Your task to perform on an android device: Open Maps and search for coffee Image 0: 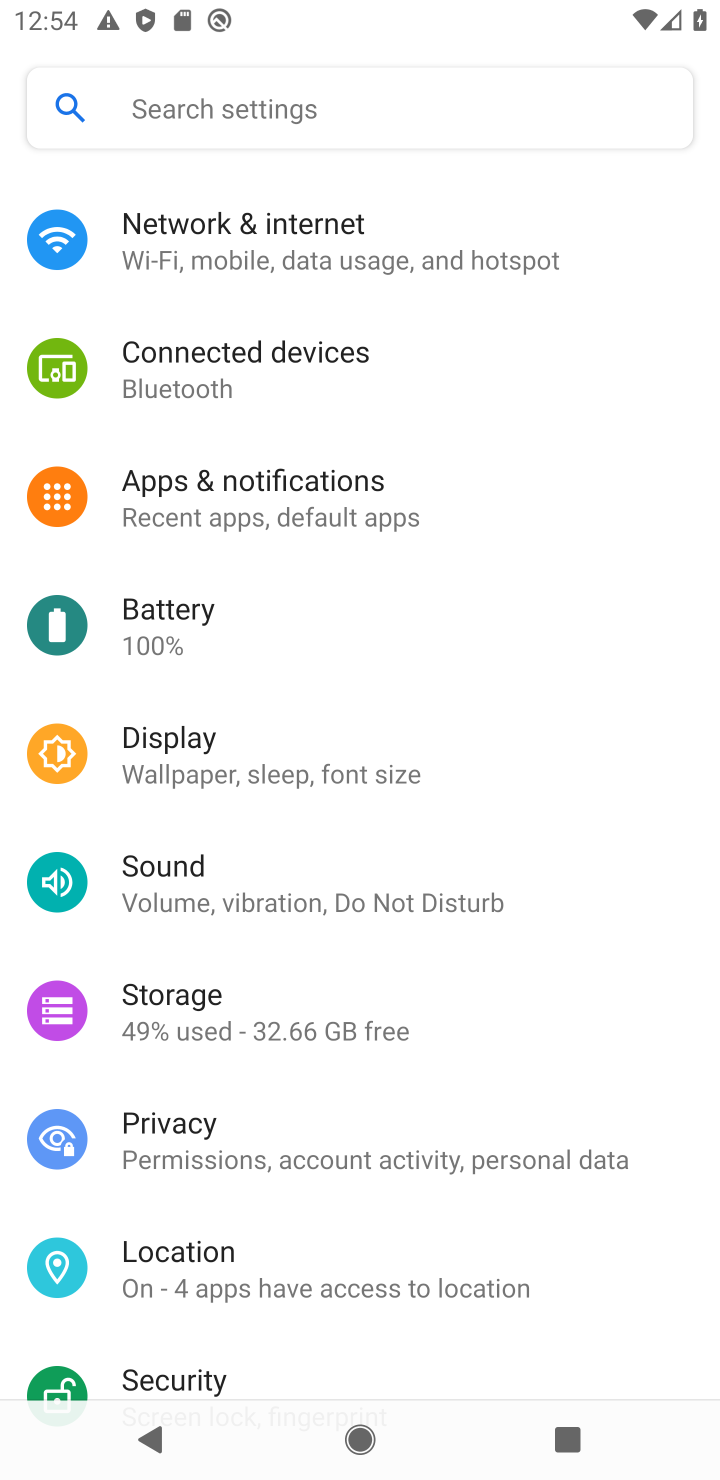
Step 0: press home button
Your task to perform on an android device: Open Maps and search for coffee Image 1: 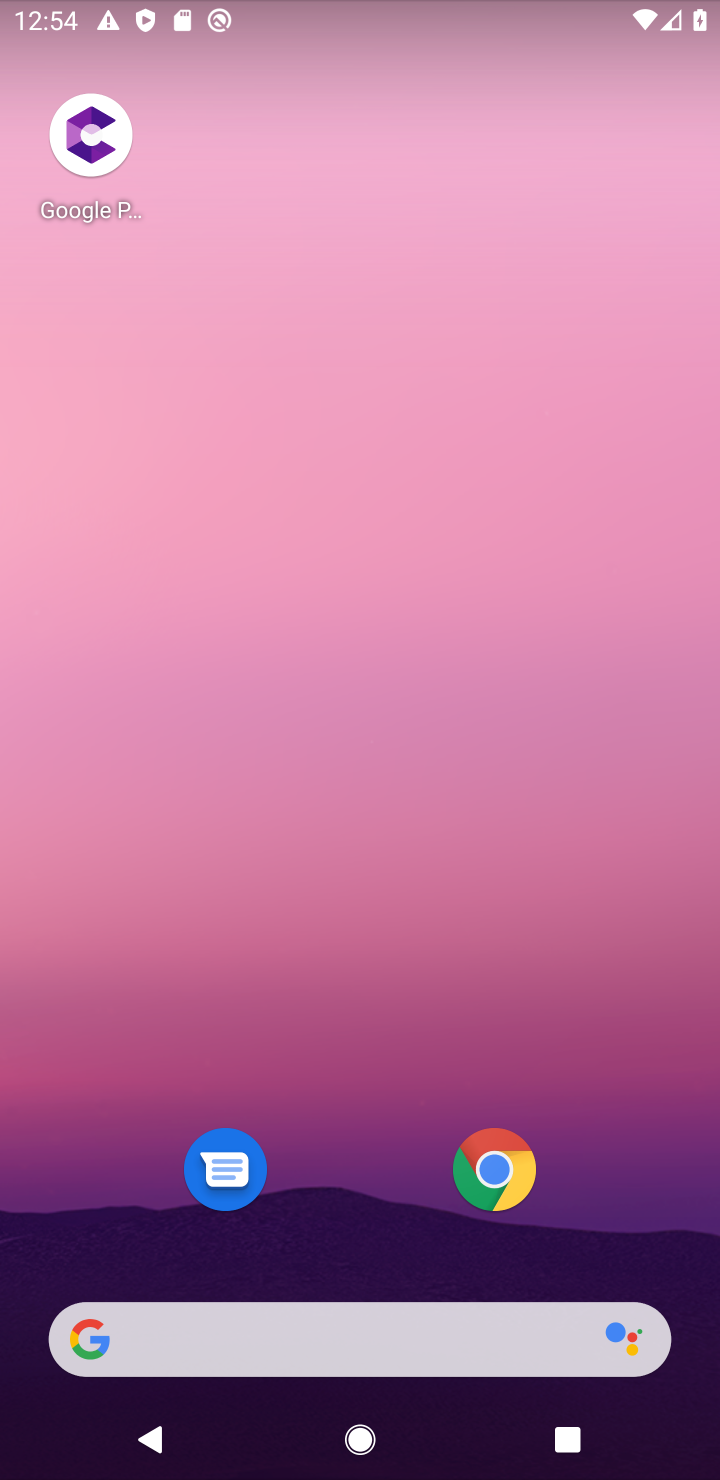
Step 1: drag from (361, 1227) to (414, 72)
Your task to perform on an android device: Open Maps and search for coffee Image 2: 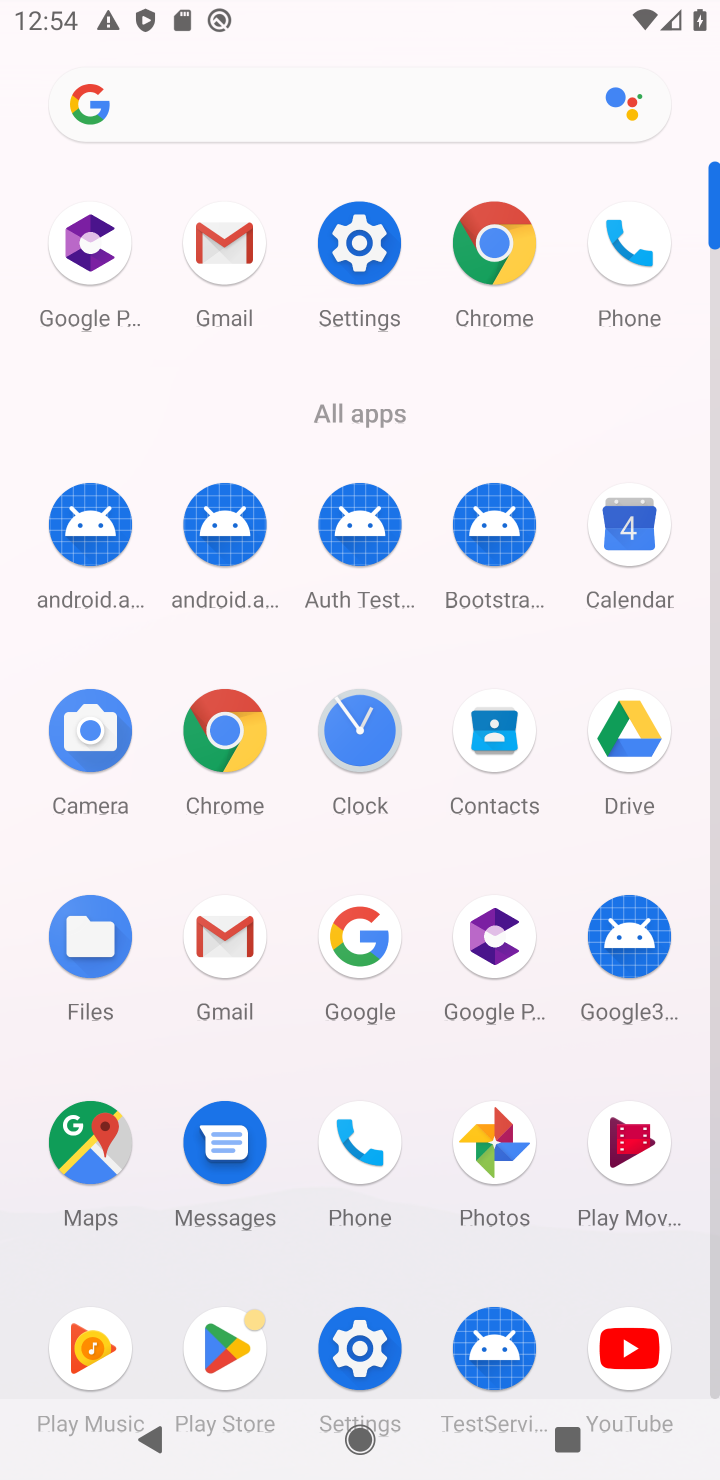
Step 2: click (69, 1161)
Your task to perform on an android device: Open Maps and search for coffee Image 3: 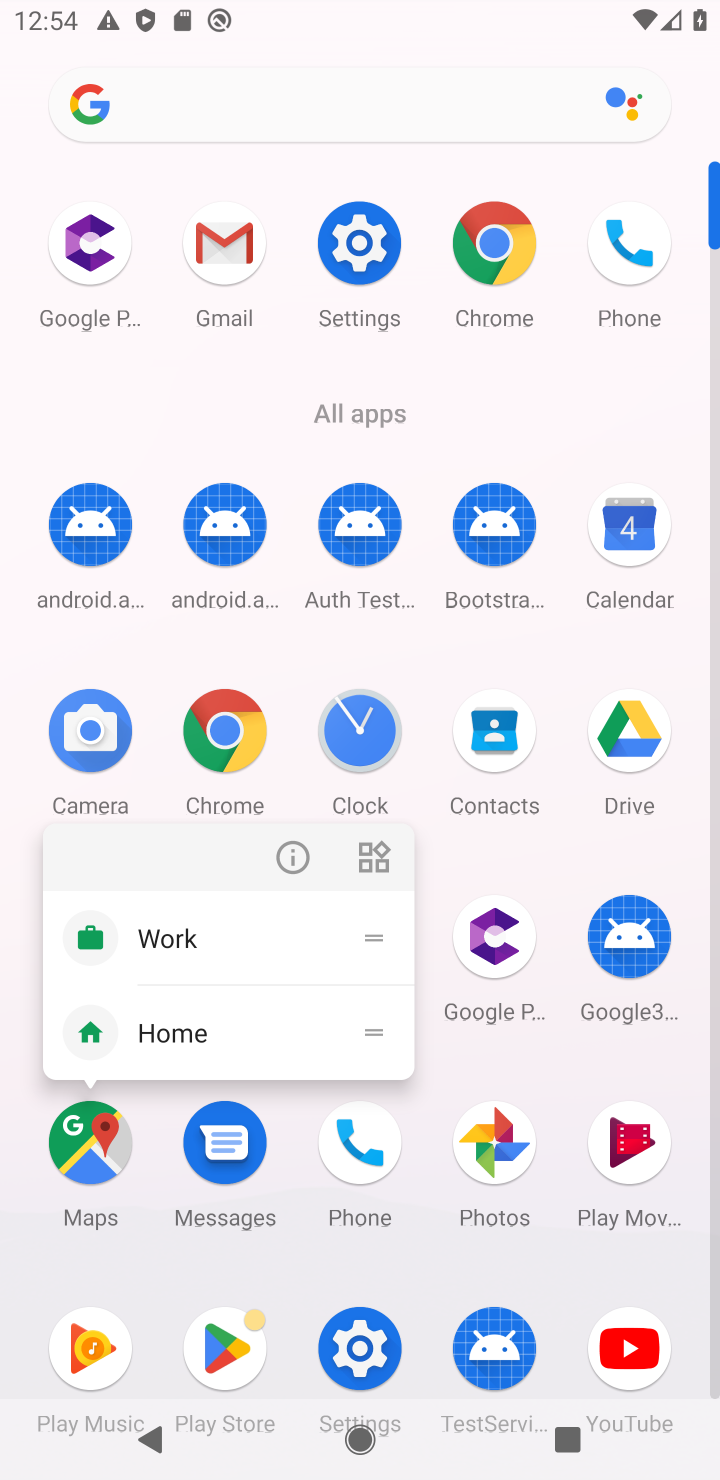
Step 3: click (75, 1163)
Your task to perform on an android device: Open Maps and search for coffee Image 4: 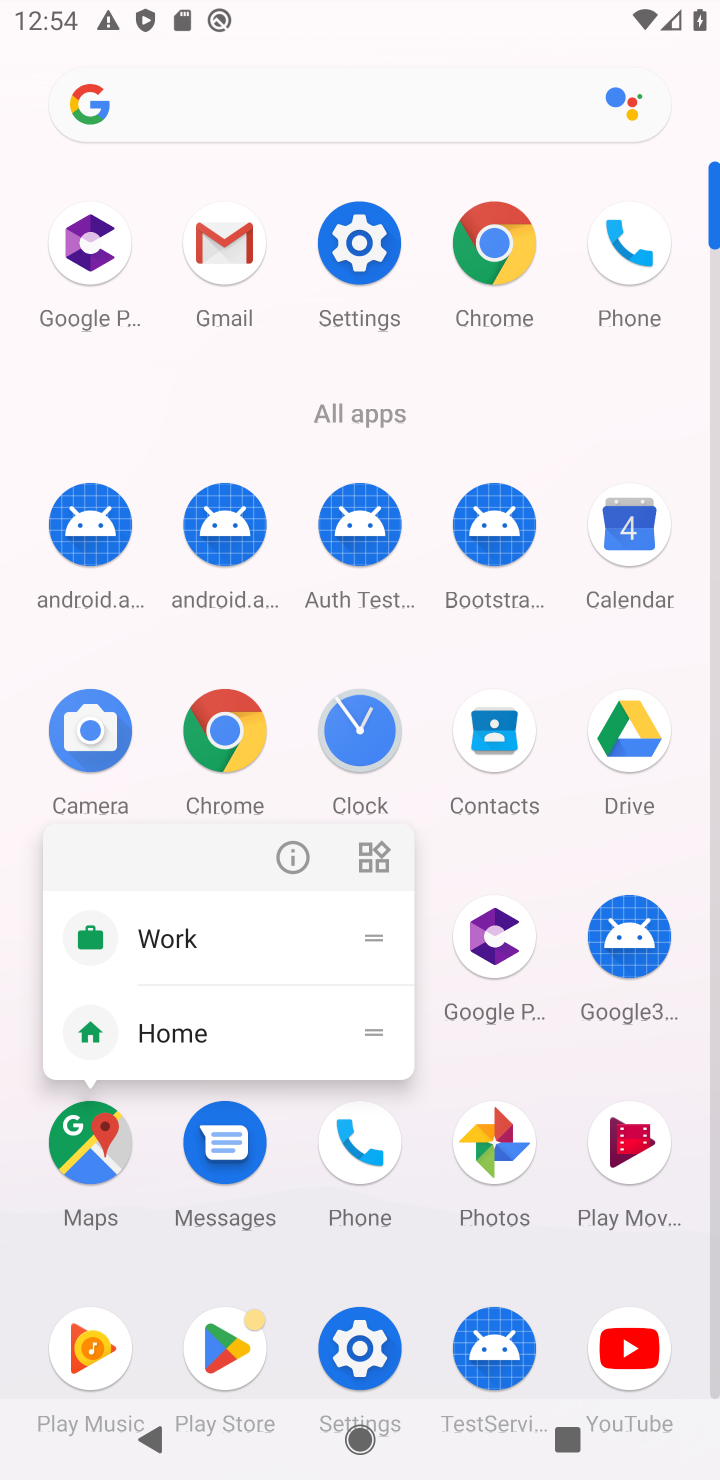
Step 4: click (75, 1163)
Your task to perform on an android device: Open Maps and search for coffee Image 5: 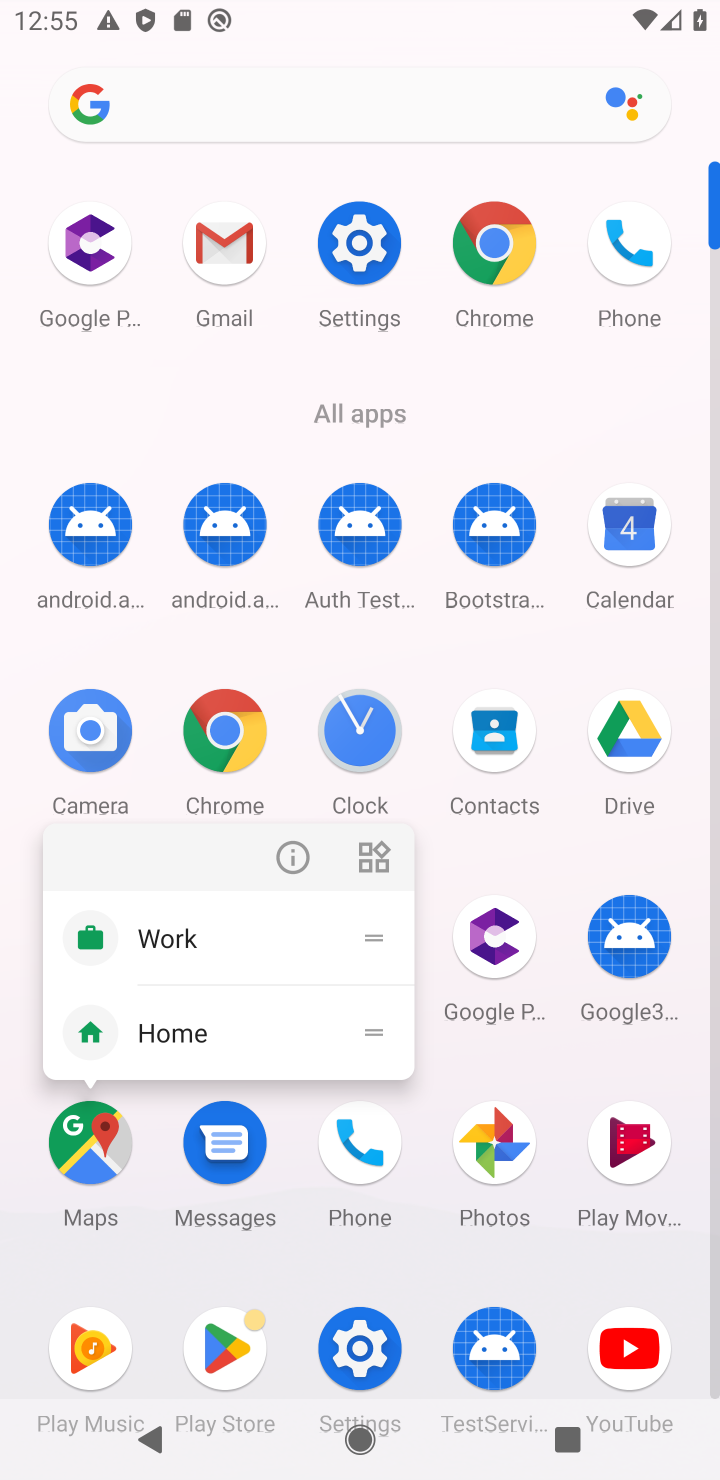
Step 5: click (105, 1159)
Your task to perform on an android device: Open Maps and search for coffee Image 6: 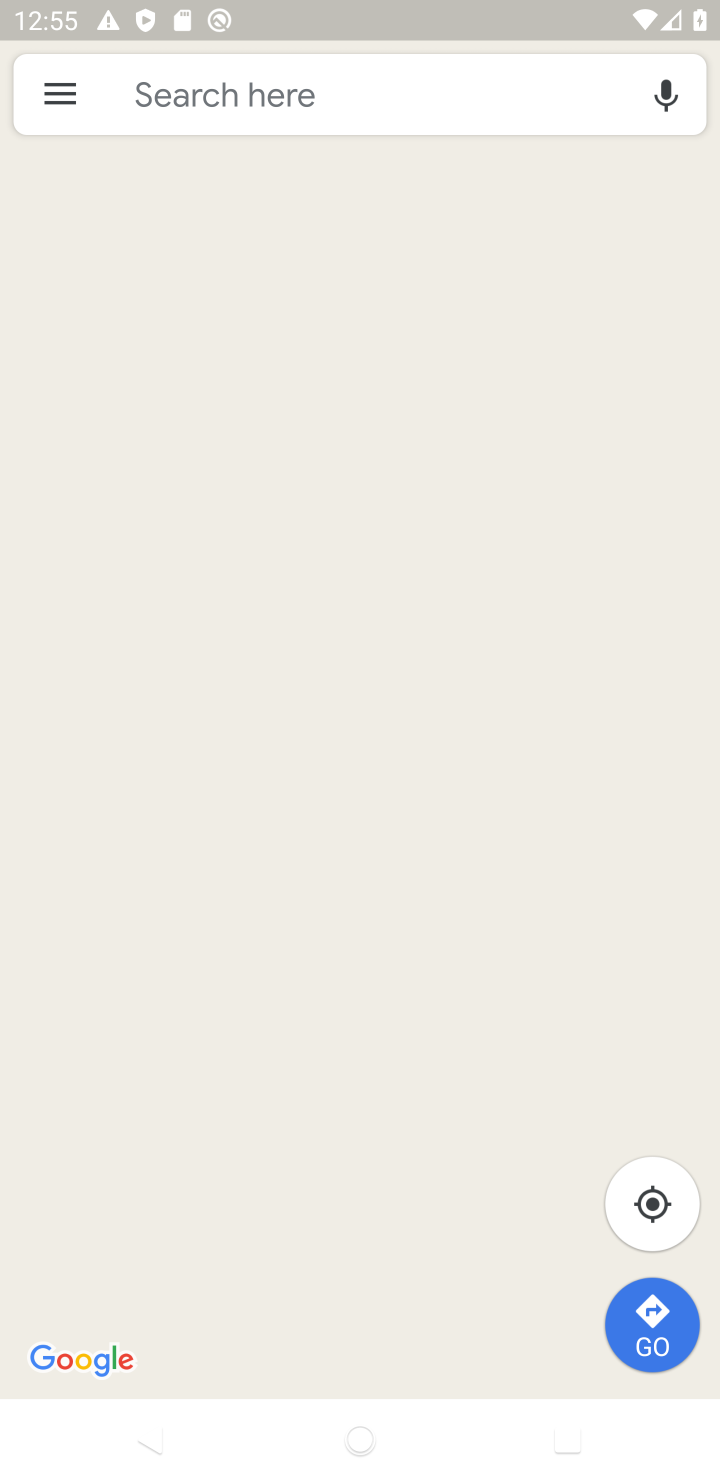
Step 6: click (278, 91)
Your task to perform on an android device: Open Maps and search for coffee Image 7: 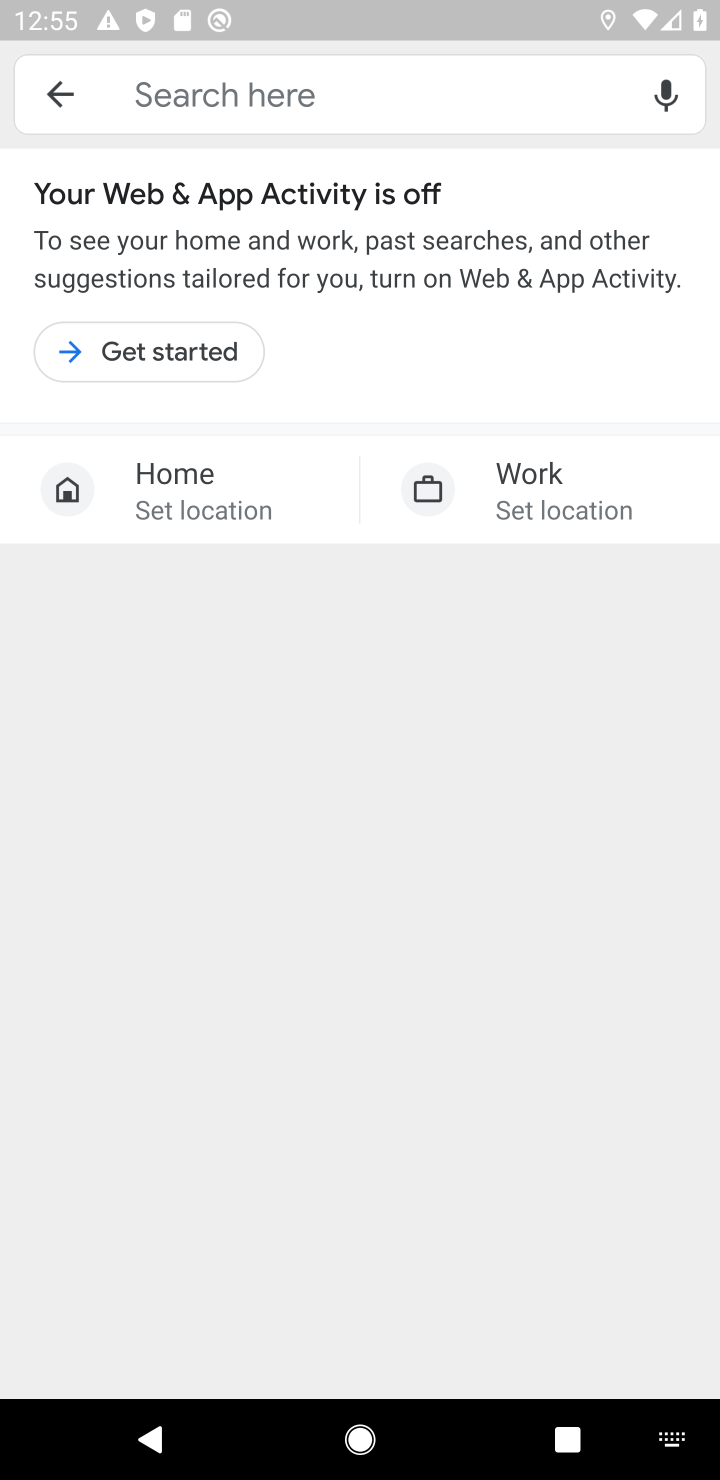
Step 7: type "coffee"
Your task to perform on an android device: Open Maps and search for coffee Image 8: 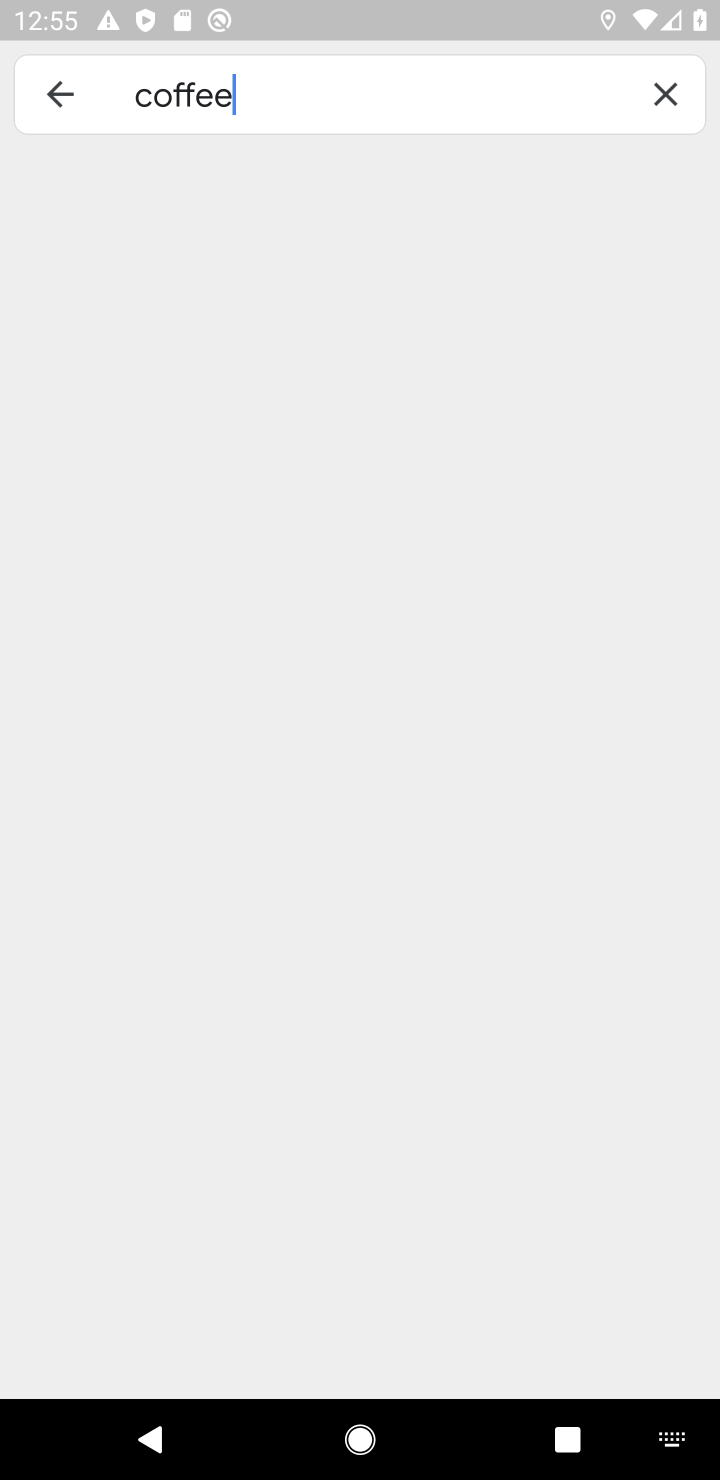
Step 8: click (264, 106)
Your task to perform on an android device: Open Maps and search for coffee Image 9: 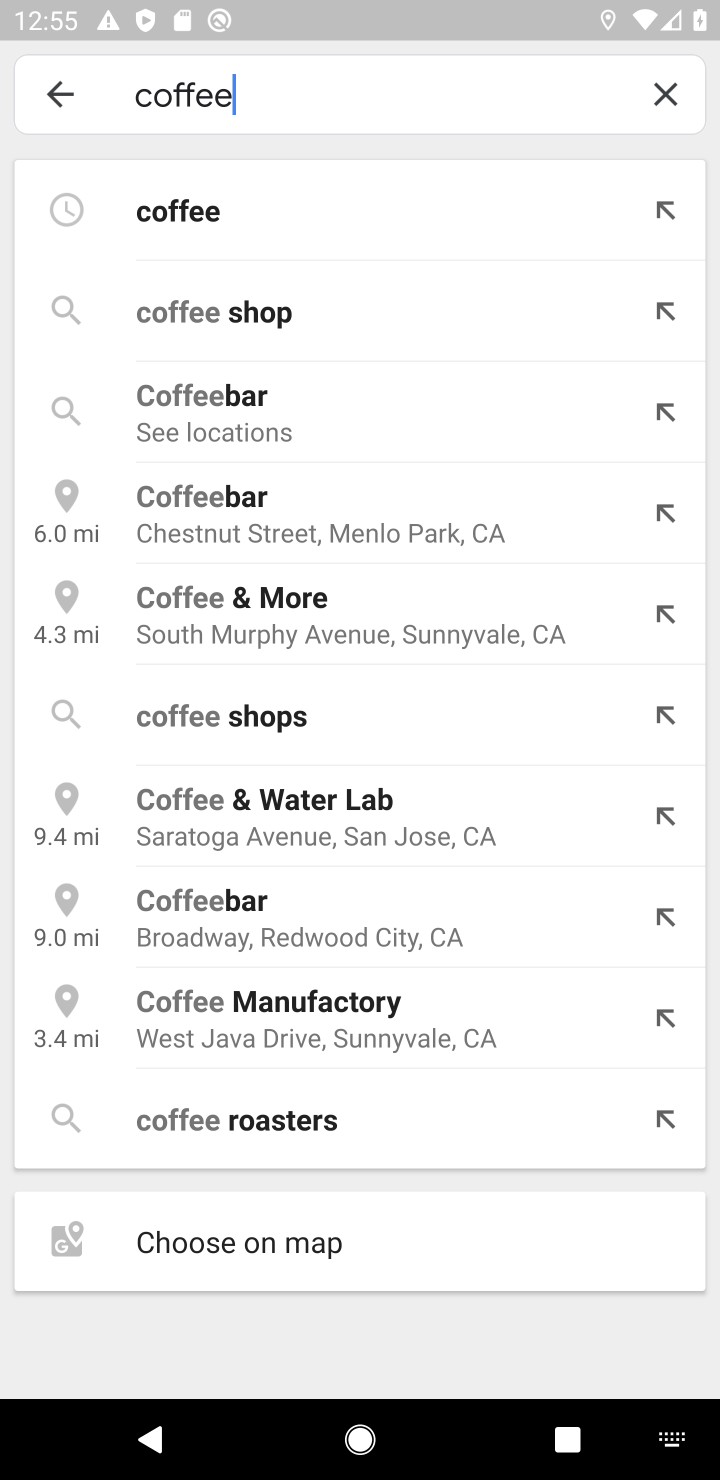
Step 9: click (224, 208)
Your task to perform on an android device: Open Maps and search for coffee Image 10: 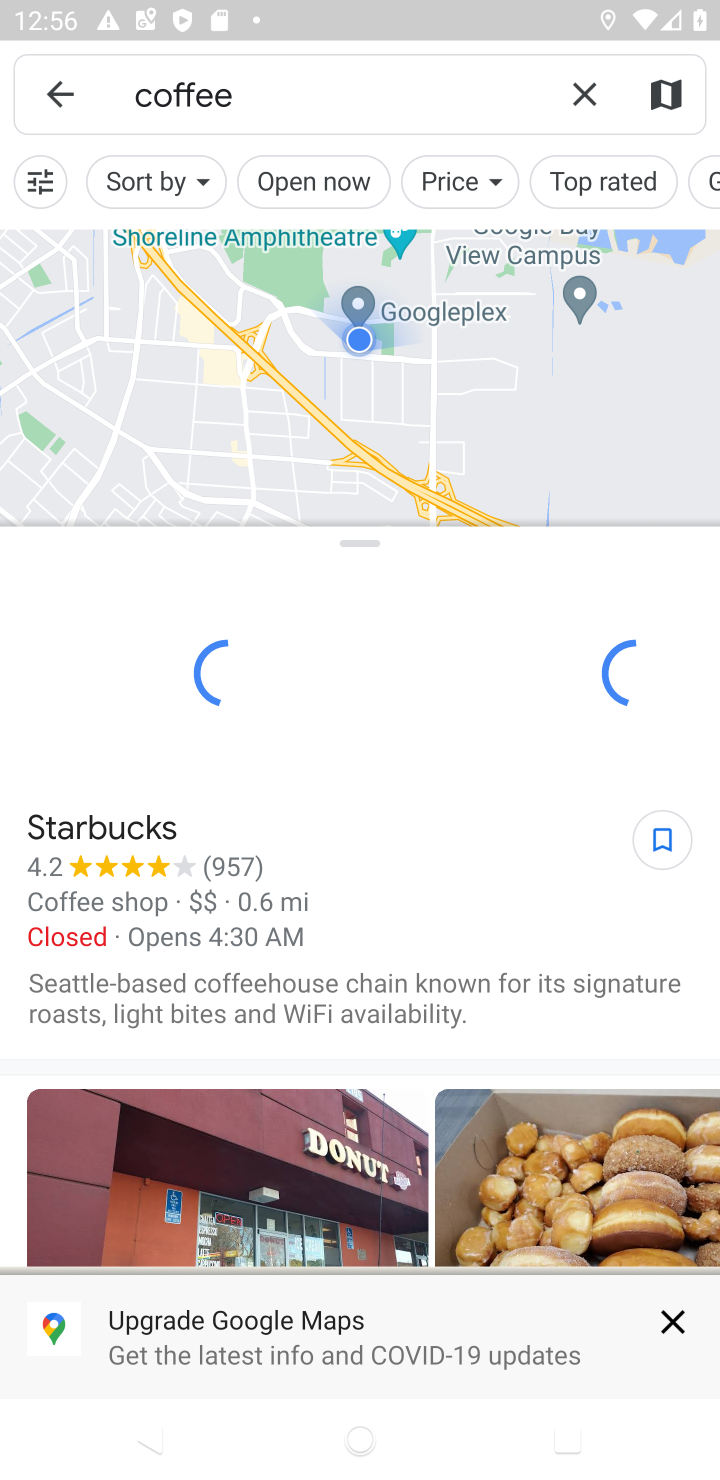
Step 10: task complete